Your task to perform on an android device: move an email to a new category in the gmail app Image 0: 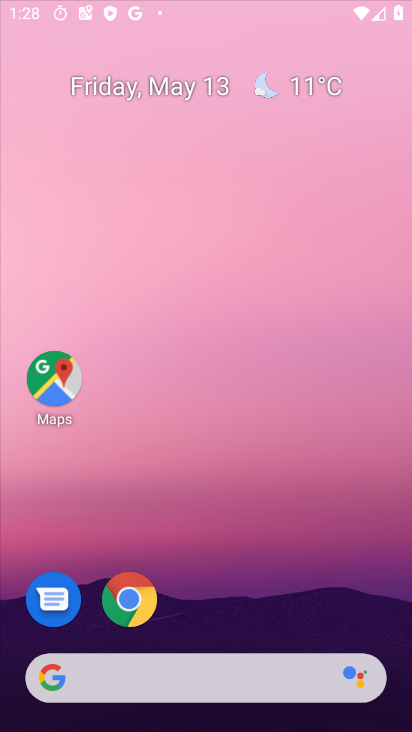
Step 0: drag from (225, 587) to (203, 246)
Your task to perform on an android device: move an email to a new category in the gmail app Image 1: 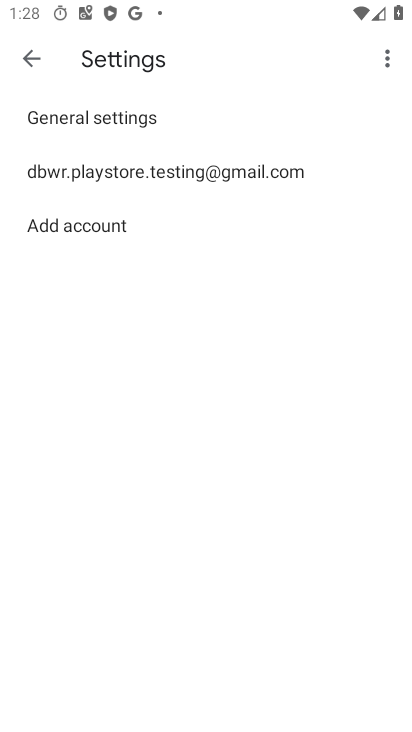
Step 1: press home button
Your task to perform on an android device: move an email to a new category in the gmail app Image 2: 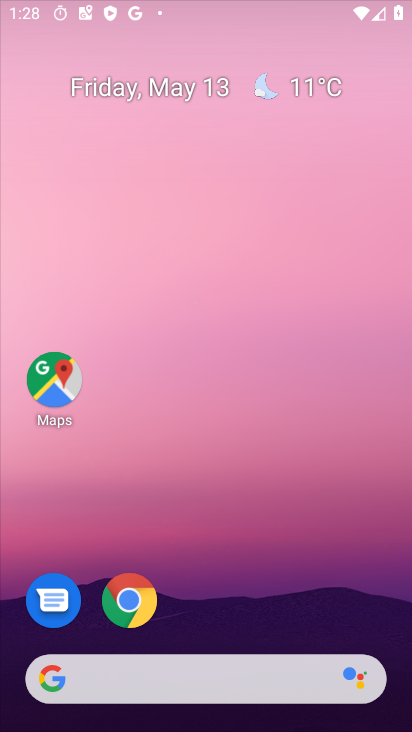
Step 2: drag from (208, 637) to (238, 133)
Your task to perform on an android device: move an email to a new category in the gmail app Image 3: 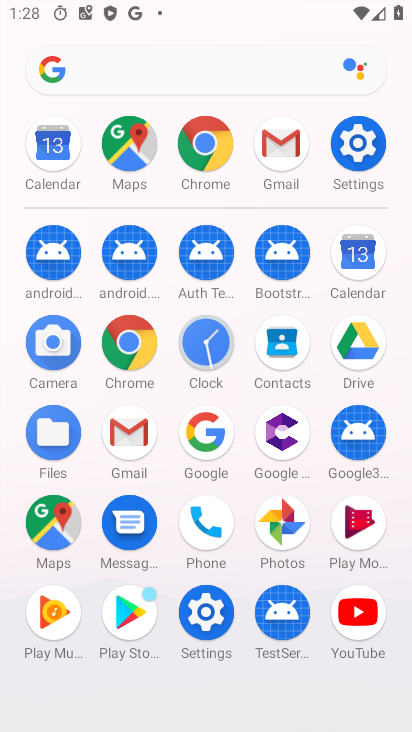
Step 3: click (130, 430)
Your task to perform on an android device: move an email to a new category in the gmail app Image 4: 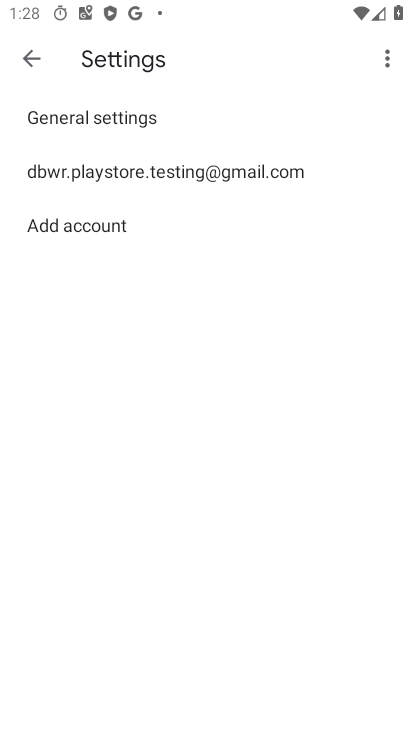
Step 4: click (183, 179)
Your task to perform on an android device: move an email to a new category in the gmail app Image 5: 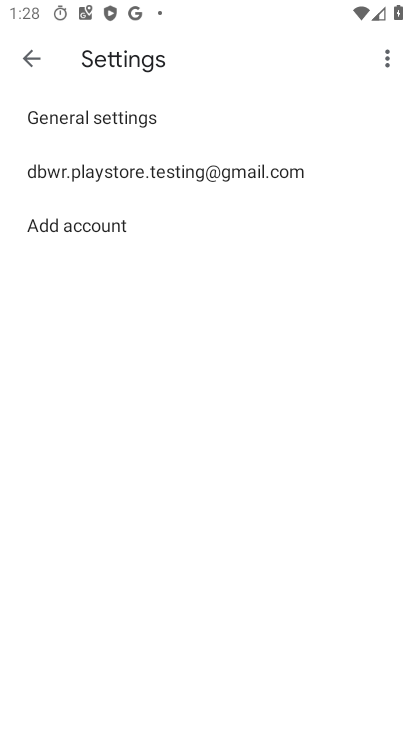
Step 5: click (184, 178)
Your task to perform on an android device: move an email to a new category in the gmail app Image 6: 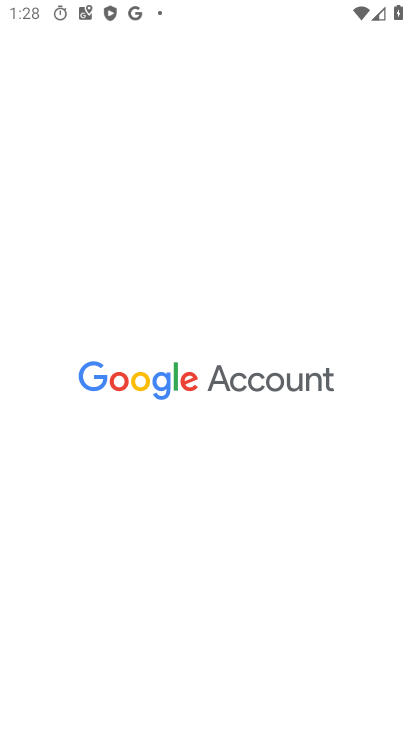
Step 6: drag from (201, 528) to (259, 220)
Your task to perform on an android device: move an email to a new category in the gmail app Image 7: 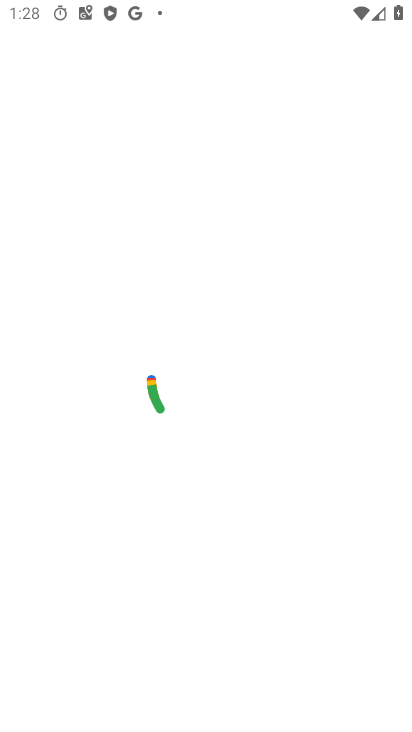
Step 7: press back button
Your task to perform on an android device: move an email to a new category in the gmail app Image 8: 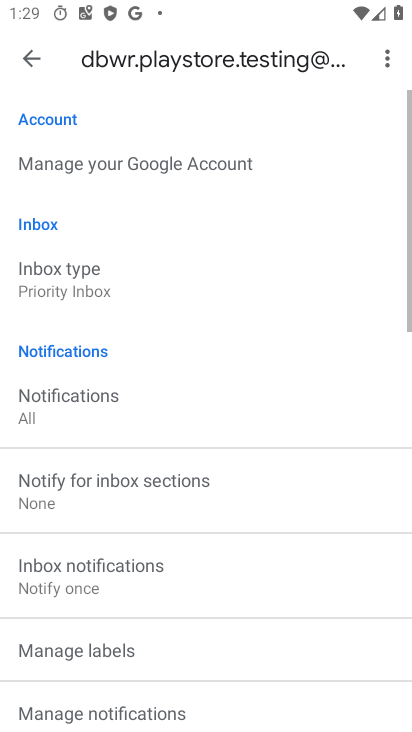
Step 8: drag from (207, 594) to (283, 281)
Your task to perform on an android device: move an email to a new category in the gmail app Image 9: 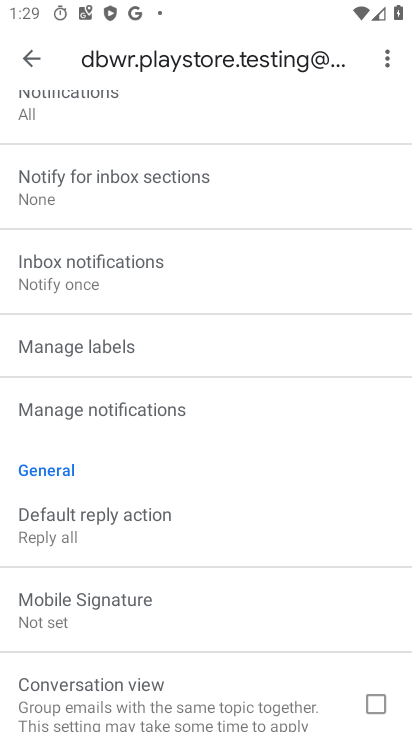
Step 9: drag from (207, 587) to (313, 258)
Your task to perform on an android device: move an email to a new category in the gmail app Image 10: 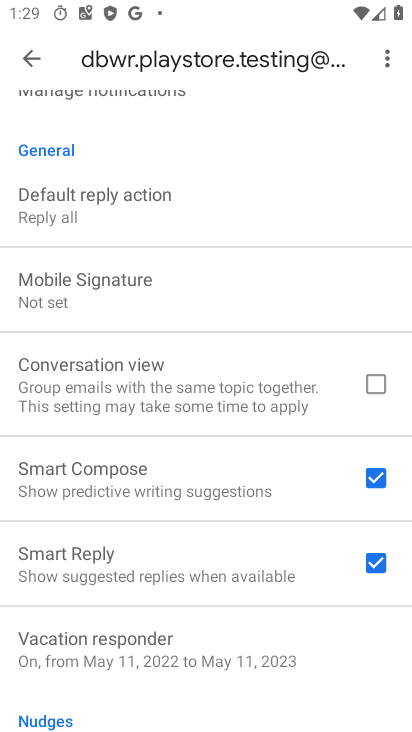
Step 10: drag from (193, 654) to (303, 295)
Your task to perform on an android device: move an email to a new category in the gmail app Image 11: 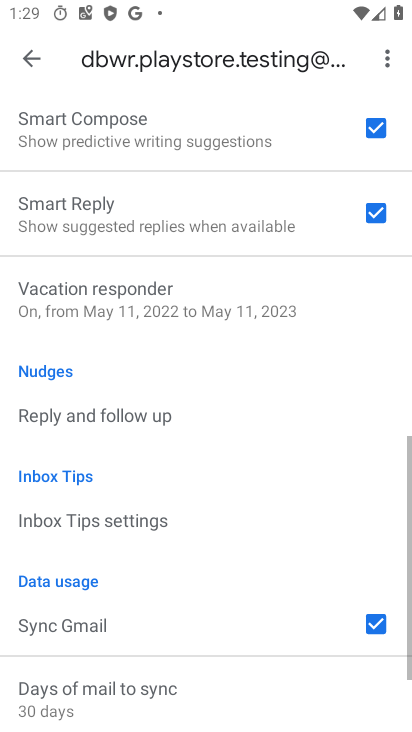
Step 11: drag from (289, 230) to (263, 716)
Your task to perform on an android device: move an email to a new category in the gmail app Image 12: 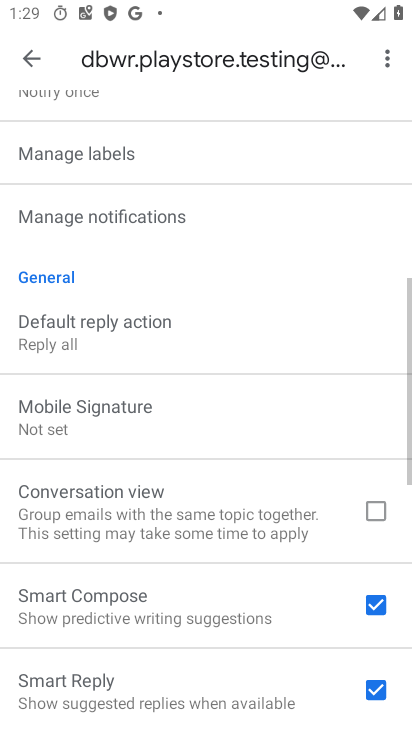
Step 12: drag from (195, 238) to (241, 729)
Your task to perform on an android device: move an email to a new category in the gmail app Image 13: 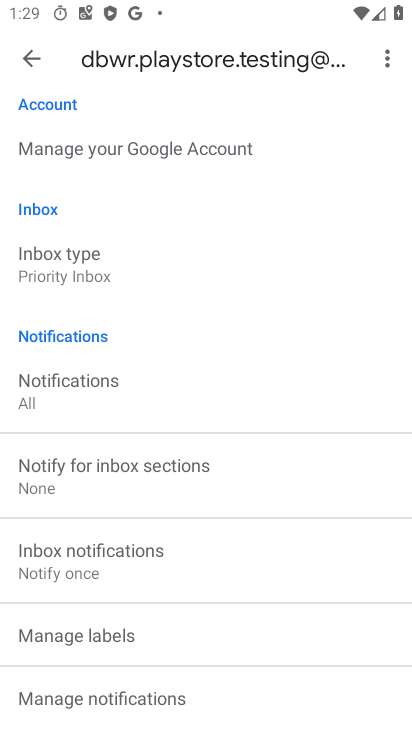
Step 13: drag from (206, 244) to (203, 571)
Your task to perform on an android device: move an email to a new category in the gmail app Image 14: 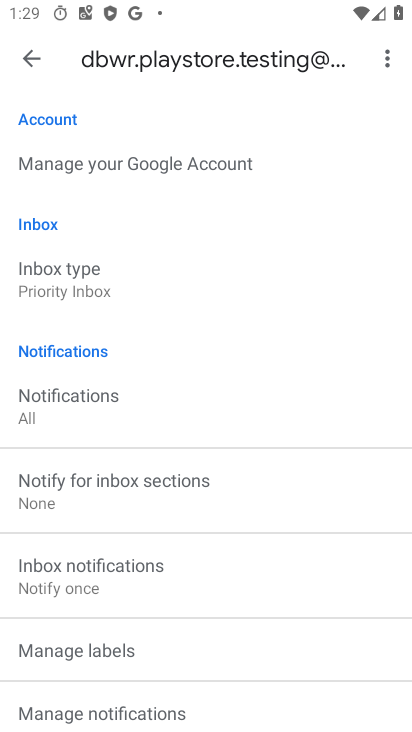
Step 14: drag from (205, 497) to (276, 162)
Your task to perform on an android device: move an email to a new category in the gmail app Image 15: 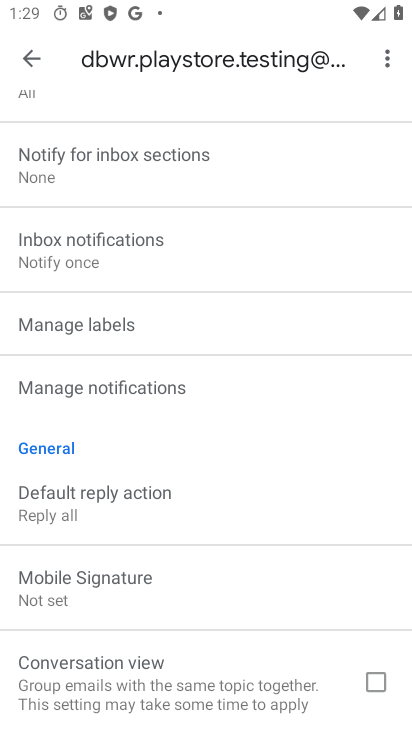
Step 15: drag from (173, 667) to (272, 195)
Your task to perform on an android device: move an email to a new category in the gmail app Image 16: 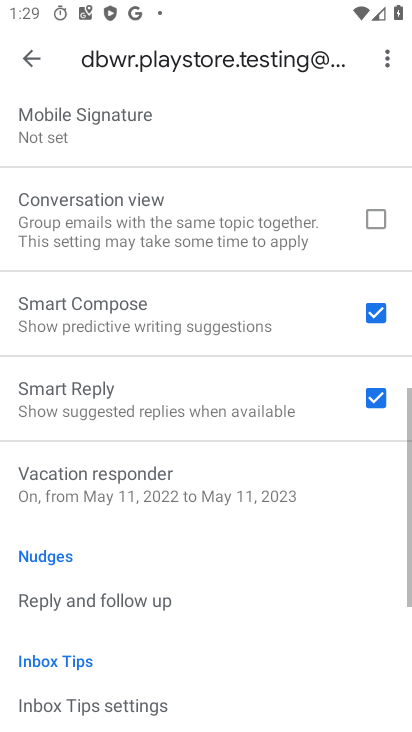
Step 16: drag from (286, 141) to (231, 708)
Your task to perform on an android device: move an email to a new category in the gmail app Image 17: 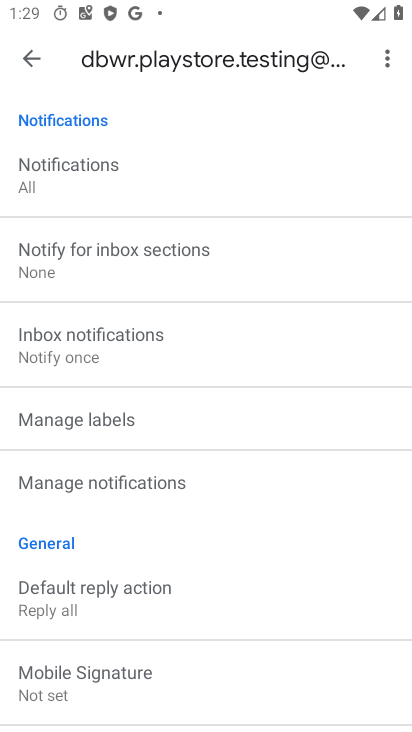
Step 17: click (24, 48)
Your task to perform on an android device: move an email to a new category in the gmail app Image 18: 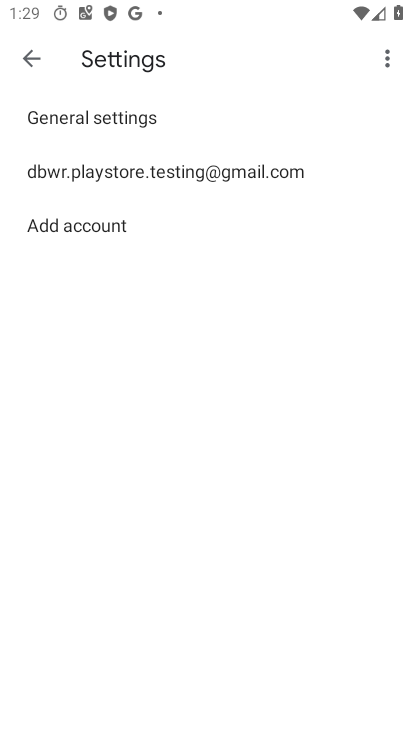
Step 18: click (24, 48)
Your task to perform on an android device: move an email to a new category in the gmail app Image 19: 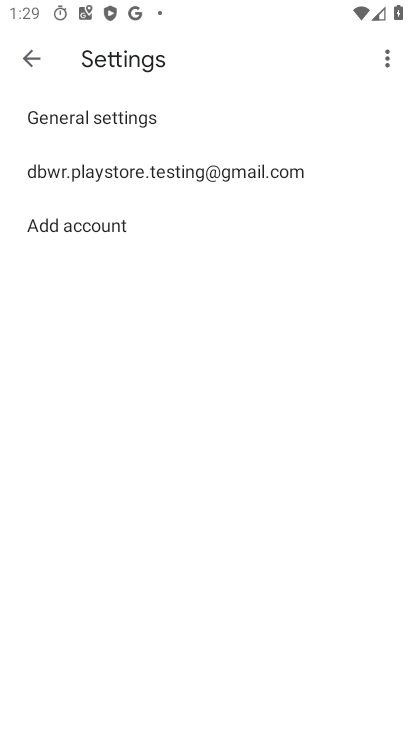
Step 19: click (44, 51)
Your task to perform on an android device: move an email to a new category in the gmail app Image 20: 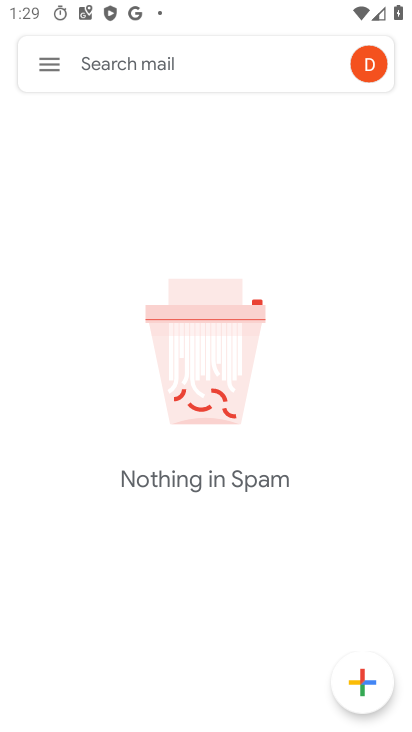
Step 20: click (47, 56)
Your task to perform on an android device: move an email to a new category in the gmail app Image 21: 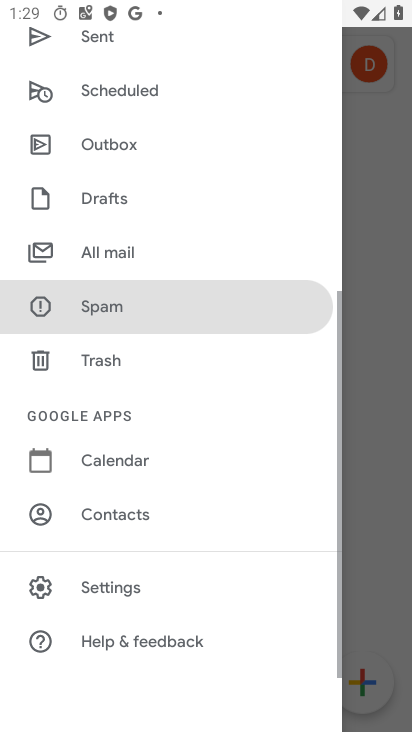
Step 21: drag from (184, 135) to (198, 594)
Your task to perform on an android device: move an email to a new category in the gmail app Image 22: 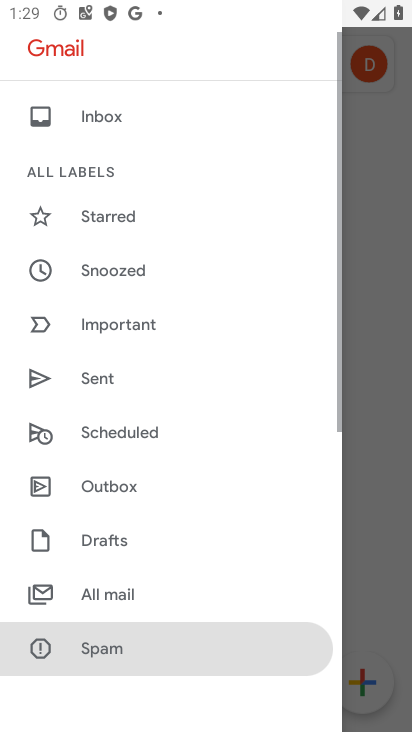
Step 22: drag from (174, 219) to (208, 620)
Your task to perform on an android device: move an email to a new category in the gmail app Image 23: 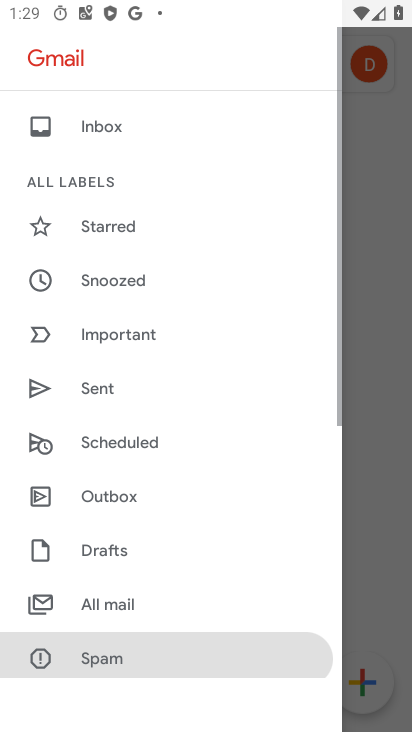
Step 23: drag from (176, 511) to (313, 56)
Your task to perform on an android device: move an email to a new category in the gmail app Image 24: 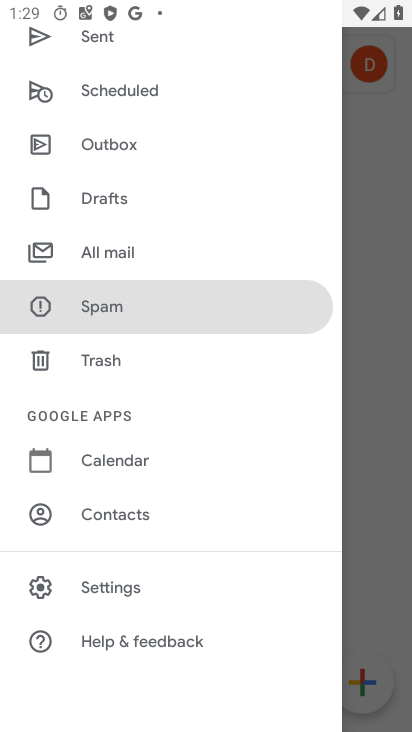
Step 24: click (140, 589)
Your task to perform on an android device: move an email to a new category in the gmail app Image 25: 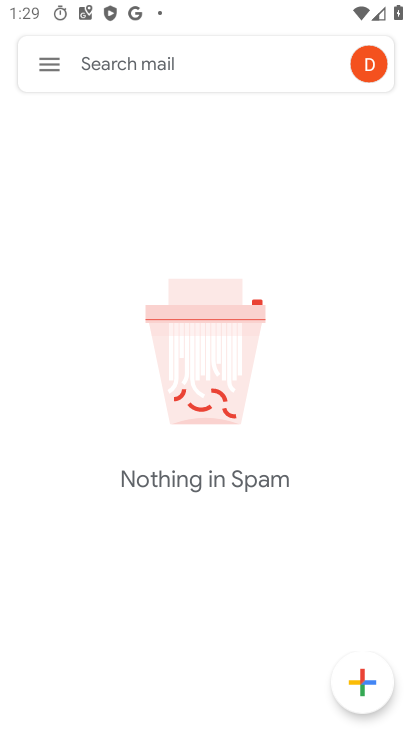
Step 25: task complete